Your task to perform on an android device: turn vacation reply on in the gmail app Image 0: 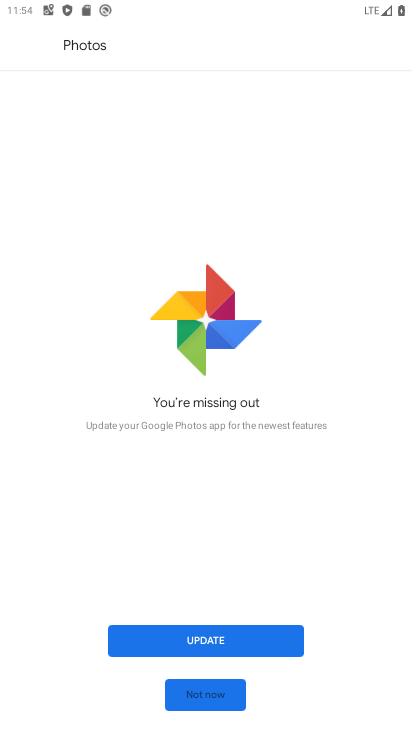
Step 0: press home button
Your task to perform on an android device: turn vacation reply on in the gmail app Image 1: 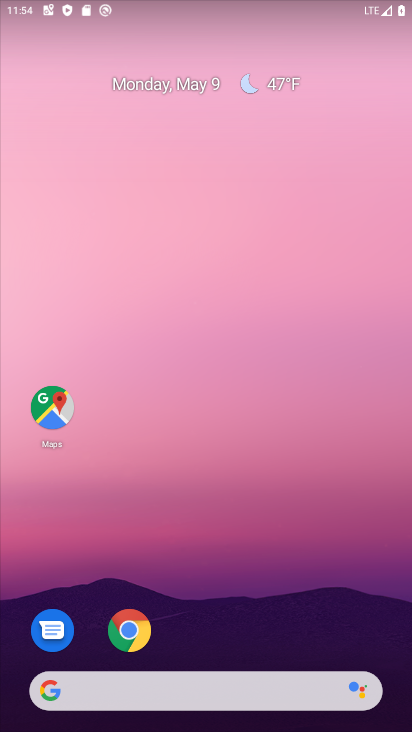
Step 1: drag from (142, 692) to (248, 285)
Your task to perform on an android device: turn vacation reply on in the gmail app Image 2: 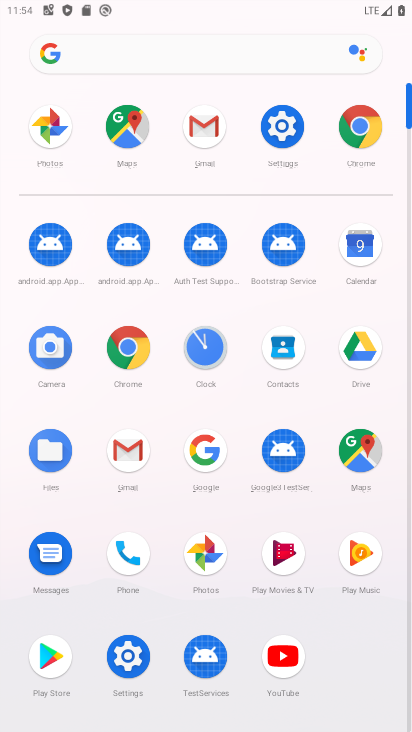
Step 2: click (197, 141)
Your task to perform on an android device: turn vacation reply on in the gmail app Image 3: 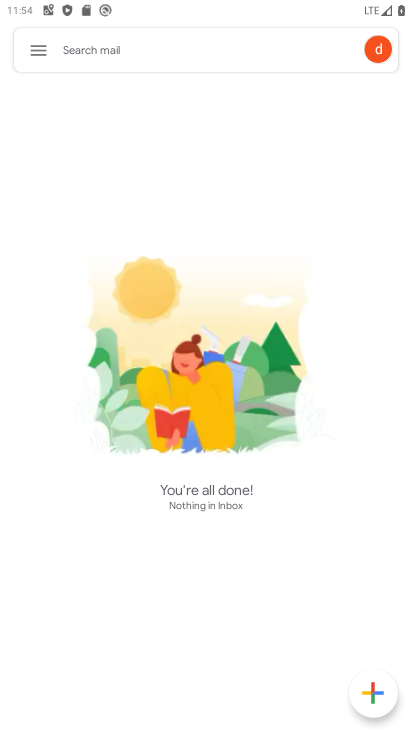
Step 3: click (37, 51)
Your task to perform on an android device: turn vacation reply on in the gmail app Image 4: 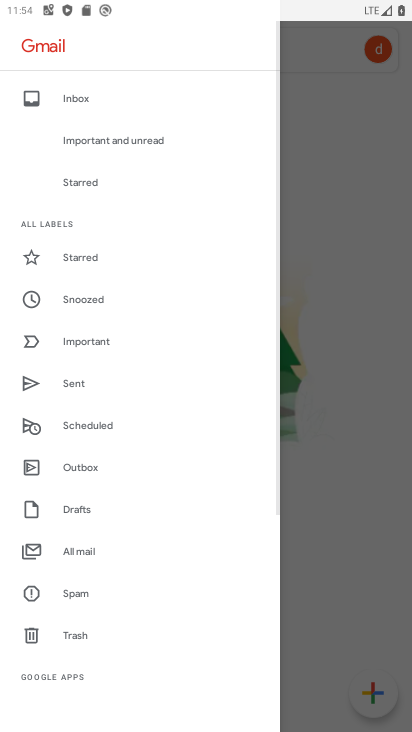
Step 4: drag from (109, 597) to (196, 407)
Your task to perform on an android device: turn vacation reply on in the gmail app Image 5: 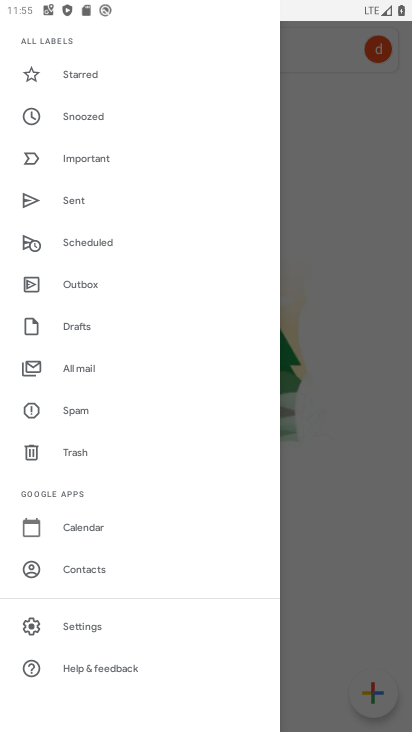
Step 5: click (87, 626)
Your task to perform on an android device: turn vacation reply on in the gmail app Image 6: 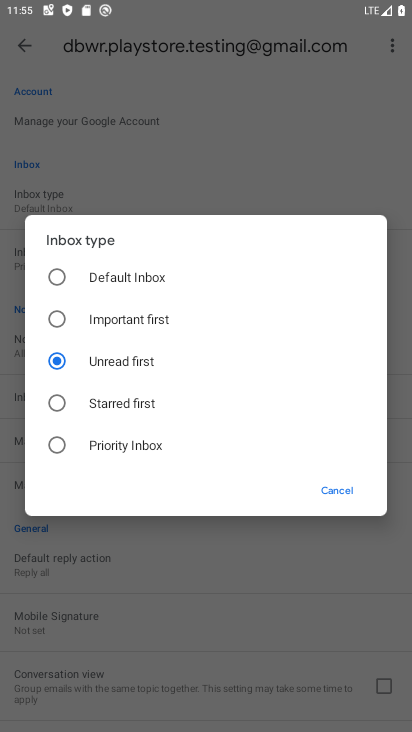
Step 6: click (326, 492)
Your task to perform on an android device: turn vacation reply on in the gmail app Image 7: 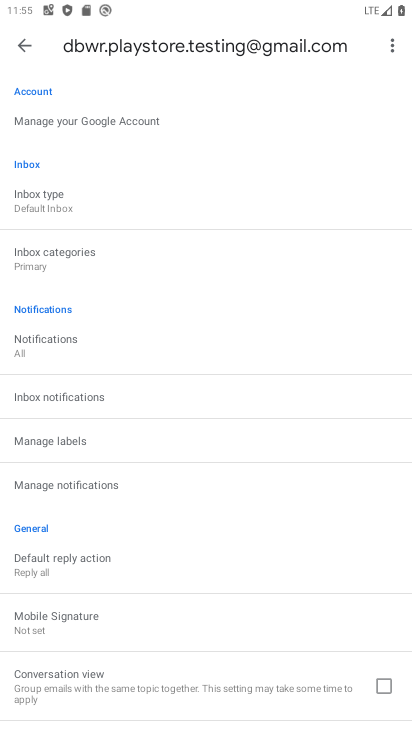
Step 7: drag from (142, 627) to (334, 198)
Your task to perform on an android device: turn vacation reply on in the gmail app Image 8: 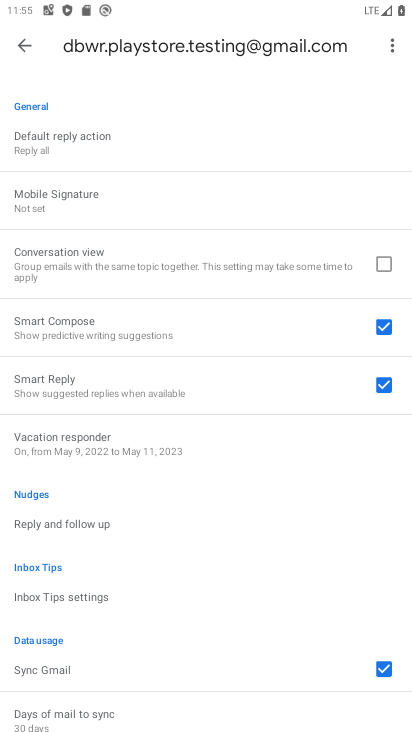
Step 8: click (121, 448)
Your task to perform on an android device: turn vacation reply on in the gmail app Image 9: 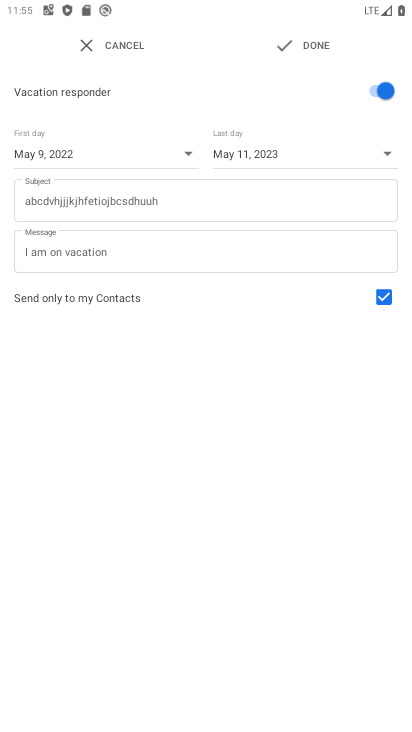
Step 9: task complete